Your task to perform on an android device: open device folders in google photos Image 0: 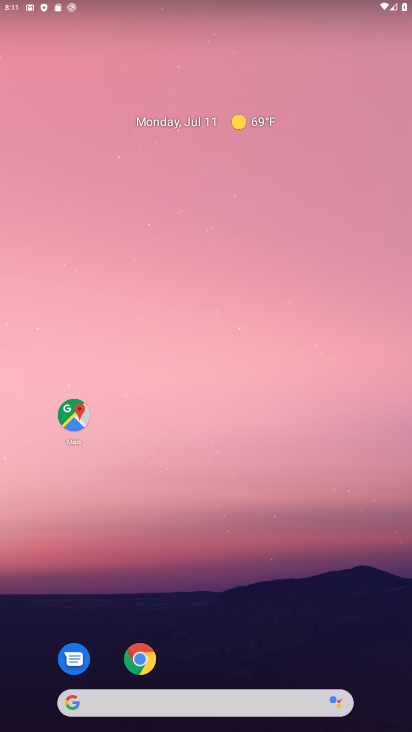
Step 0: click (278, 140)
Your task to perform on an android device: open device folders in google photos Image 1: 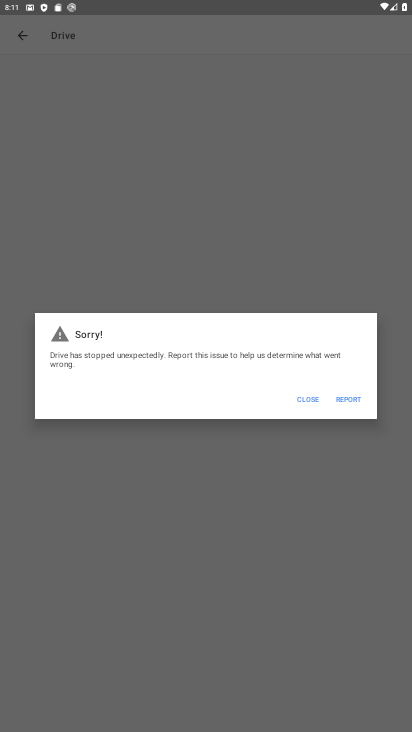
Step 1: press home button
Your task to perform on an android device: open device folders in google photos Image 2: 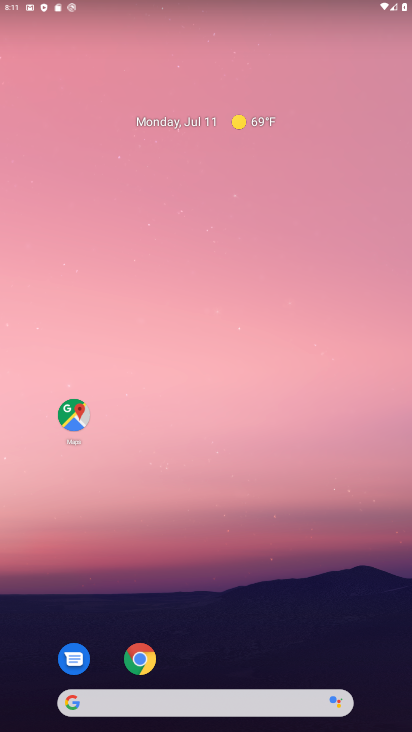
Step 2: drag from (255, 682) to (328, 167)
Your task to perform on an android device: open device folders in google photos Image 3: 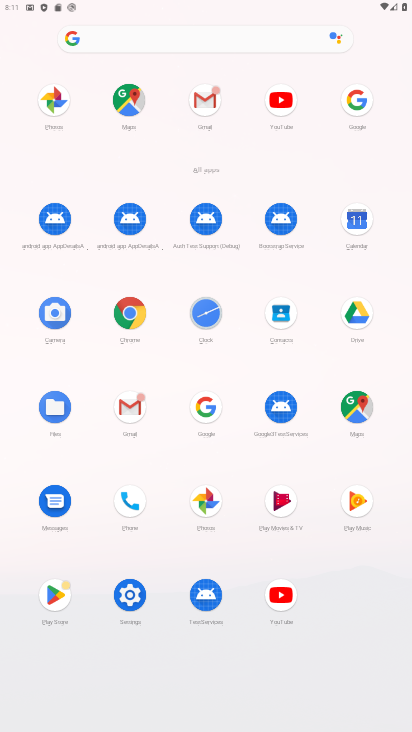
Step 3: click (205, 518)
Your task to perform on an android device: open device folders in google photos Image 4: 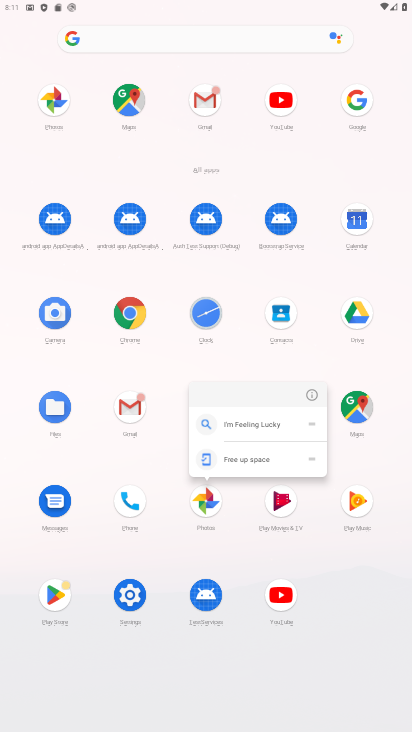
Step 4: click (210, 506)
Your task to perform on an android device: open device folders in google photos Image 5: 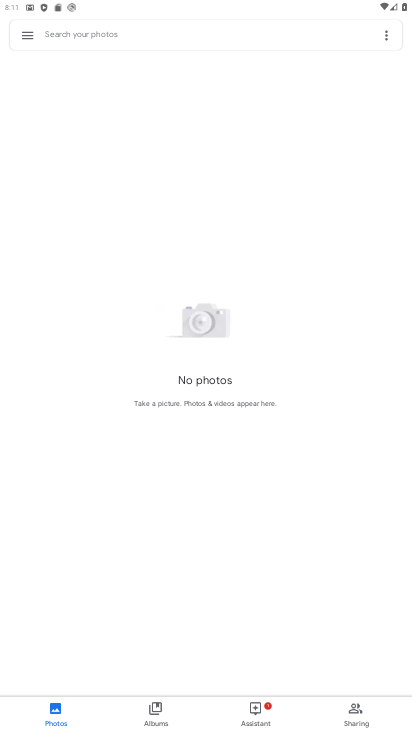
Step 5: click (28, 20)
Your task to perform on an android device: open device folders in google photos Image 6: 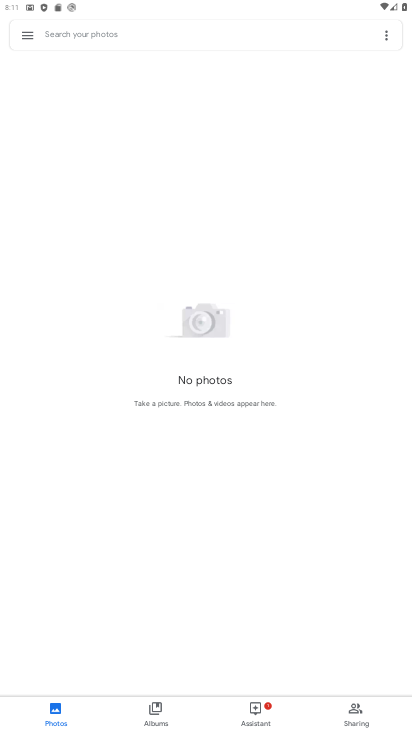
Step 6: click (32, 29)
Your task to perform on an android device: open device folders in google photos Image 7: 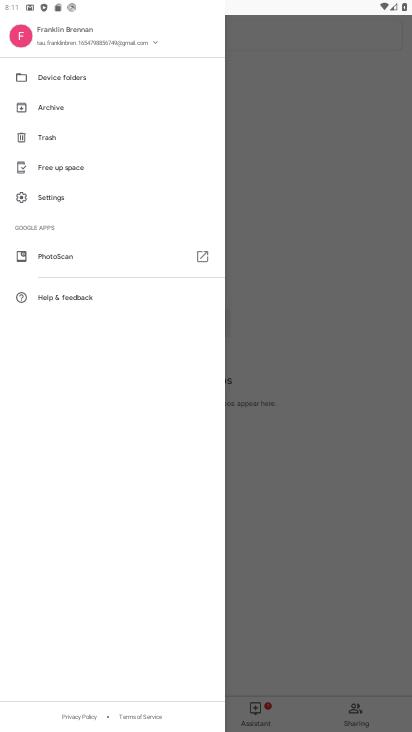
Step 7: click (75, 87)
Your task to perform on an android device: open device folders in google photos Image 8: 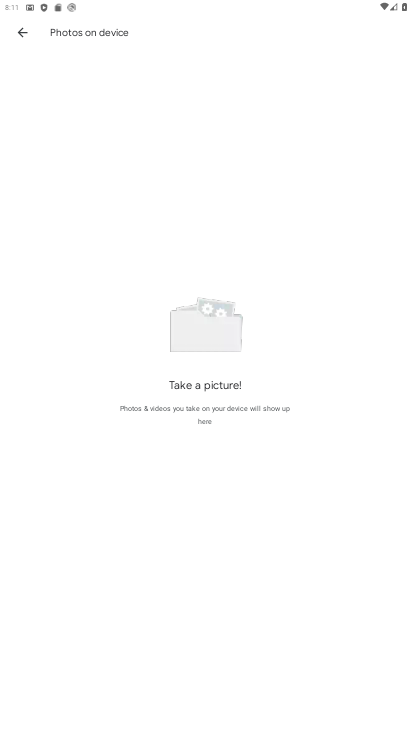
Step 8: task complete